Your task to perform on an android device: Search for sony triple a on bestbuy, select the first entry, add it to the cart, then select checkout. Image 0: 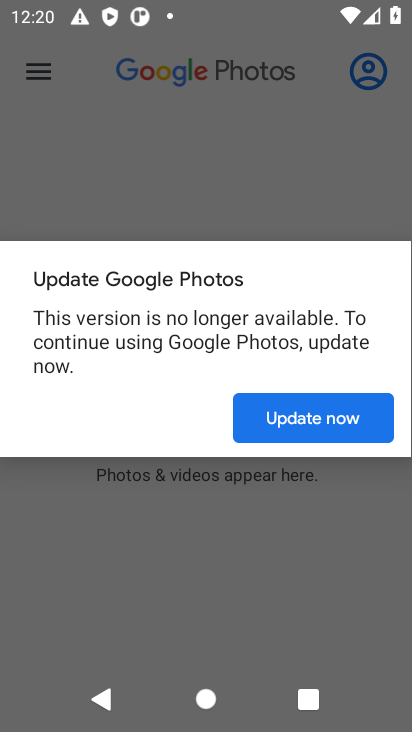
Step 0: press home button
Your task to perform on an android device: Search for sony triple a on bestbuy, select the first entry, add it to the cart, then select checkout. Image 1: 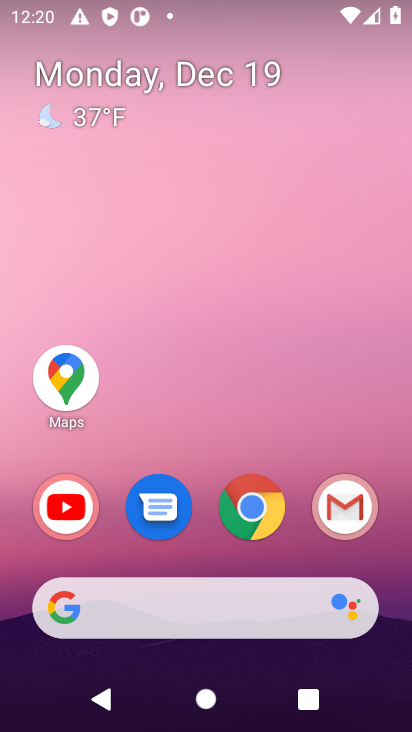
Step 1: click (256, 506)
Your task to perform on an android device: Search for sony triple a on bestbuy, select the first entry, add it to the cart, then select checkout. Image 2: 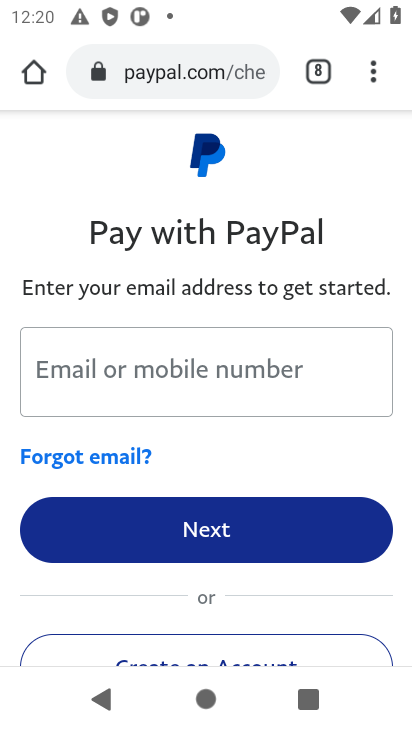
Step 2: click (191, 73)
Your task to perform on an android device: Search for sony triple a on bestbuy, select the first entry, add it to the cart, then select checkout. Image 3: 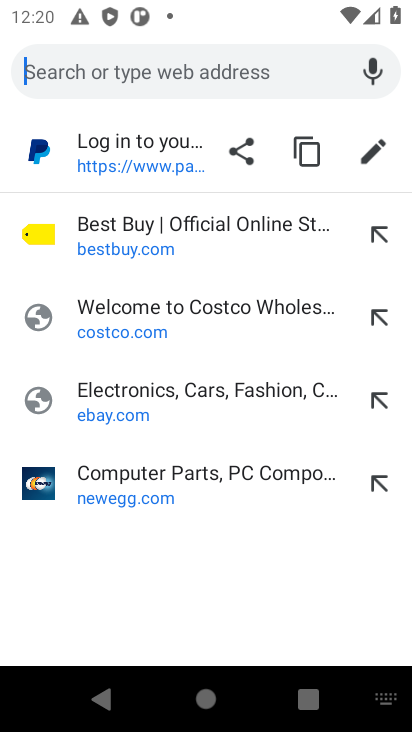
Step 3: click (119, 242)
Your task to perform on an android device: Search for sony triple a on bestbuy, select the first entry, add it to the cart, then select checkout. Image 4: 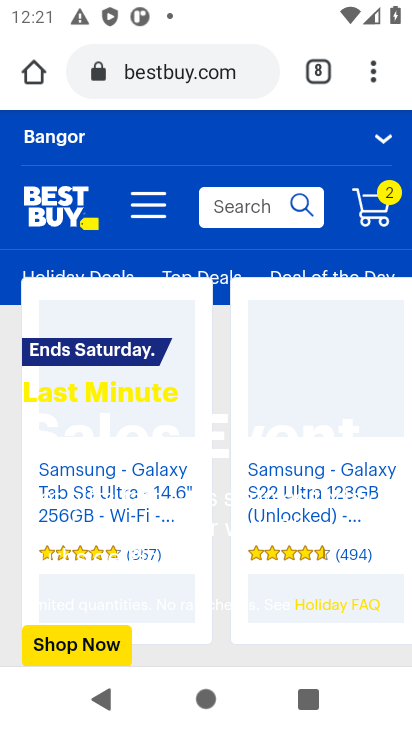
Step 4: click (243, 211)
Your task to perform on an android device: Search for sony triple a on bestbuy, select the first entry, add it to the cart, then select checkout. Image 5: 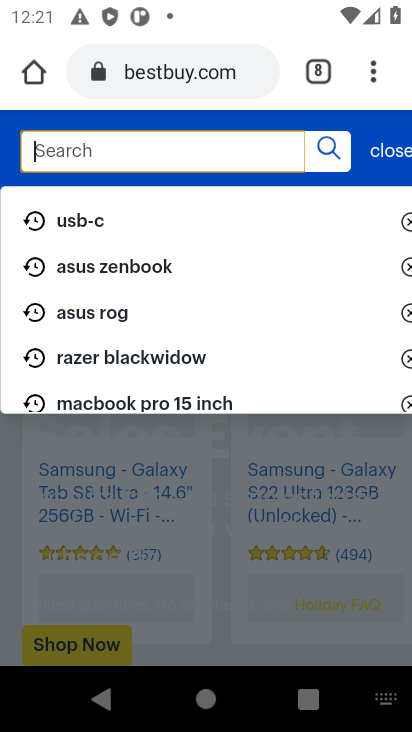
Step 5: type "sony triple a "
Your task to perform on an android device: Search for sony triple a on bestbuy, select the first entry, add it to the cart, then select checkout. Image 6: 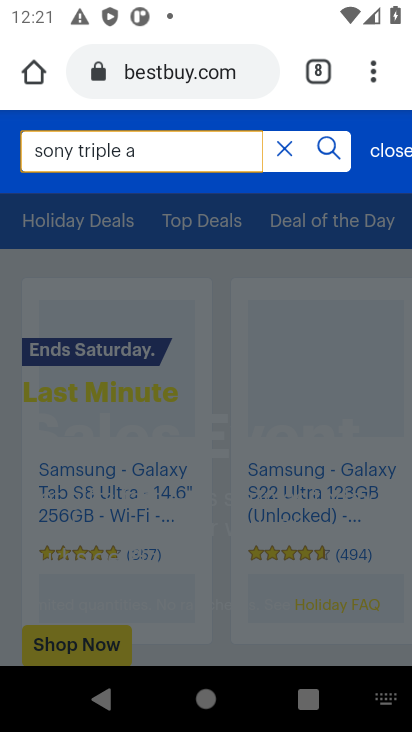
Step 6: click (332, 155)
Your task to perform on an android device: Search for sony triple a on bestbuy, select the first entry, add it to the cart, then select checkout. Image 7: 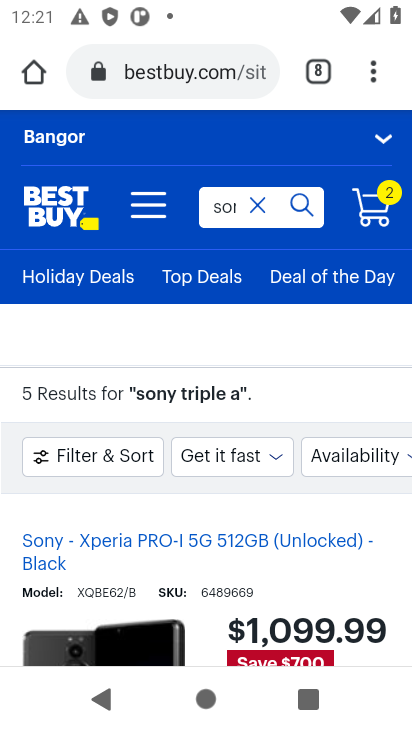
Step 7: task complete